Your task to perform on an android device: toggle improve location accuracy Image 0: 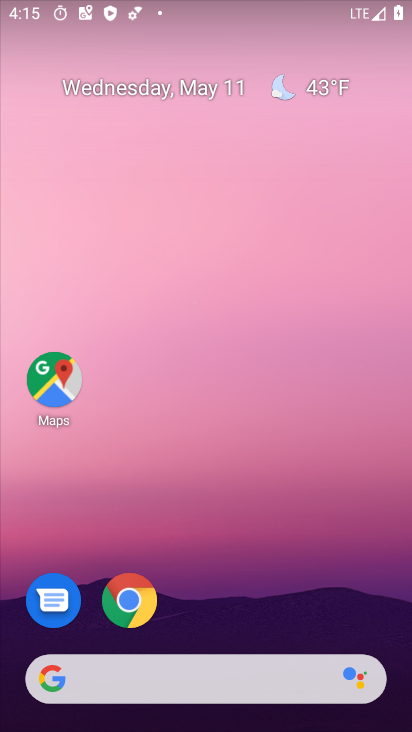
Step 0: drag from (293, 610) to (297, 19)
Your task to perform on an android device: toggle improve location accuracy Image 1: 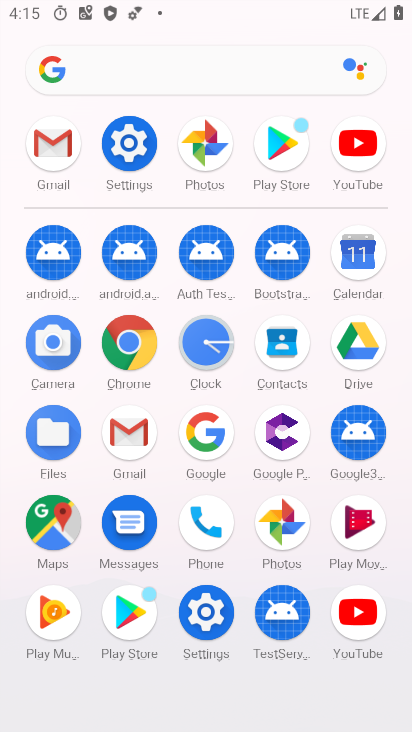
Step 1: click (126, 135)
Your task to perform on an android device: toggle improve location accuracy Image 2: 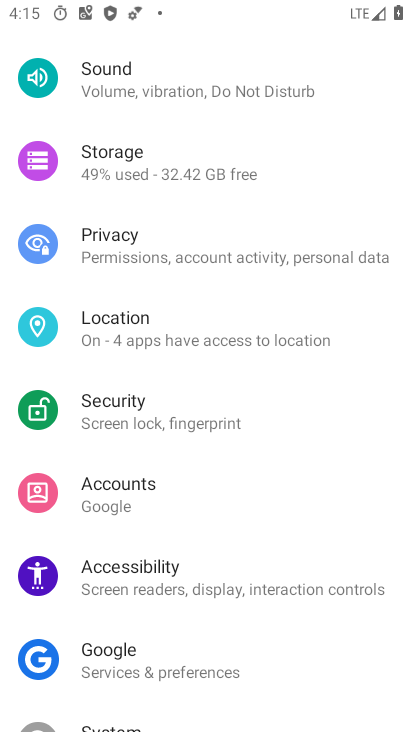
Step 2: click (131, 324)
Your task to perform on an android device: toggle improve location accuracy Image 3: 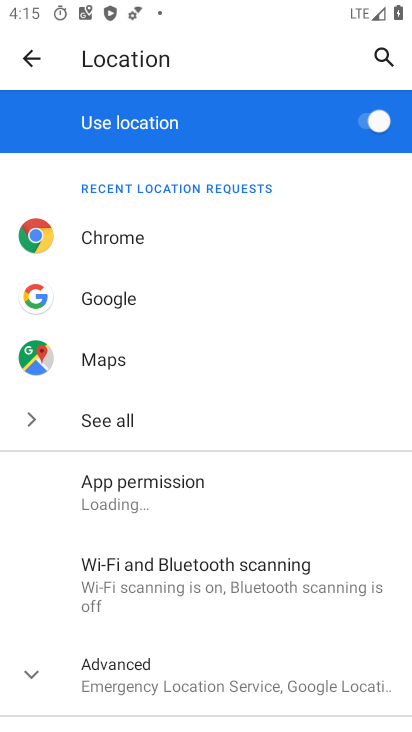
Step 3: drag from (156, 613) to (203, 193)
Your task to perform on an android device: toggle improve location accuracy Image 4: 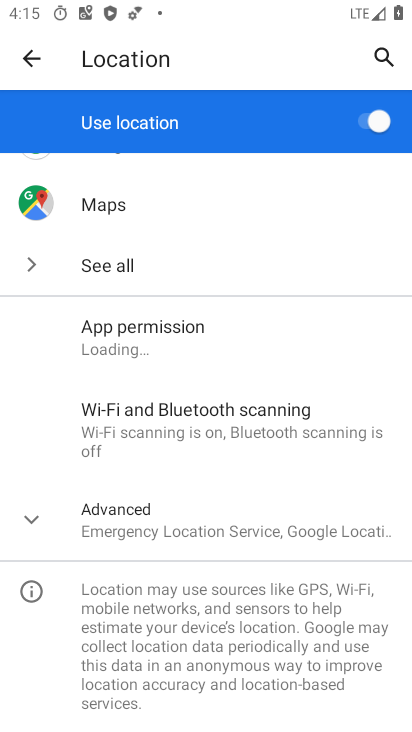
Step 4: click (36, 529)
Your task to perform on an android device: toggle improve location accuracy Image 5: 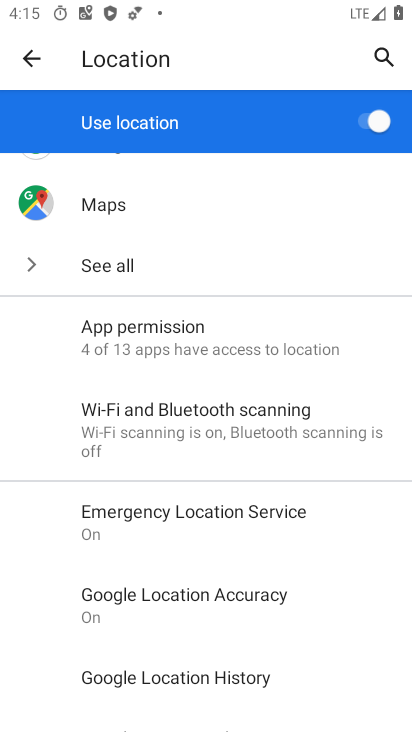
Step 5: click (170, 598)
Your task to perform on an android device: toggle improve location accuracy Image 6: 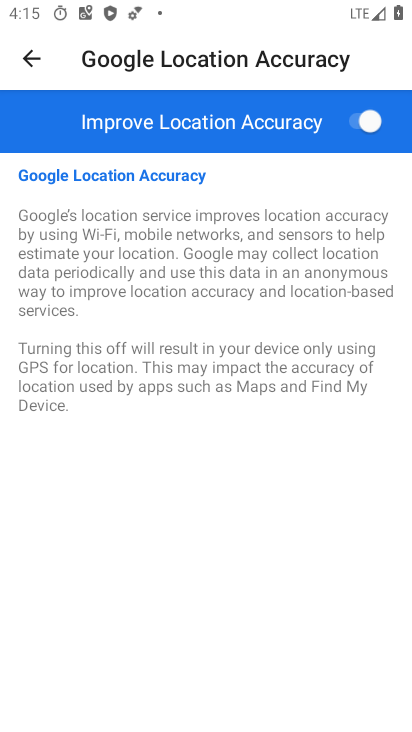
Step 6: click (361, 121)
Your task to perform on an android device: toggle improve location accuracy Image 7: 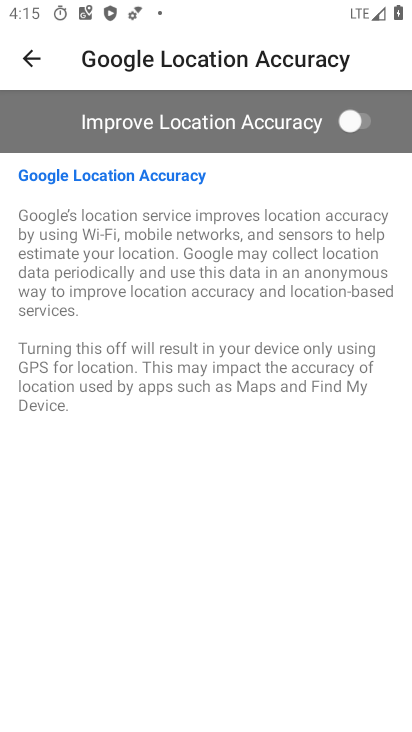
Step 7: task complete